Your task to perform on an android device: Empty the shopping cart on newegg.com. Add "apple airpods" to the cart on newegg.com Image 0: 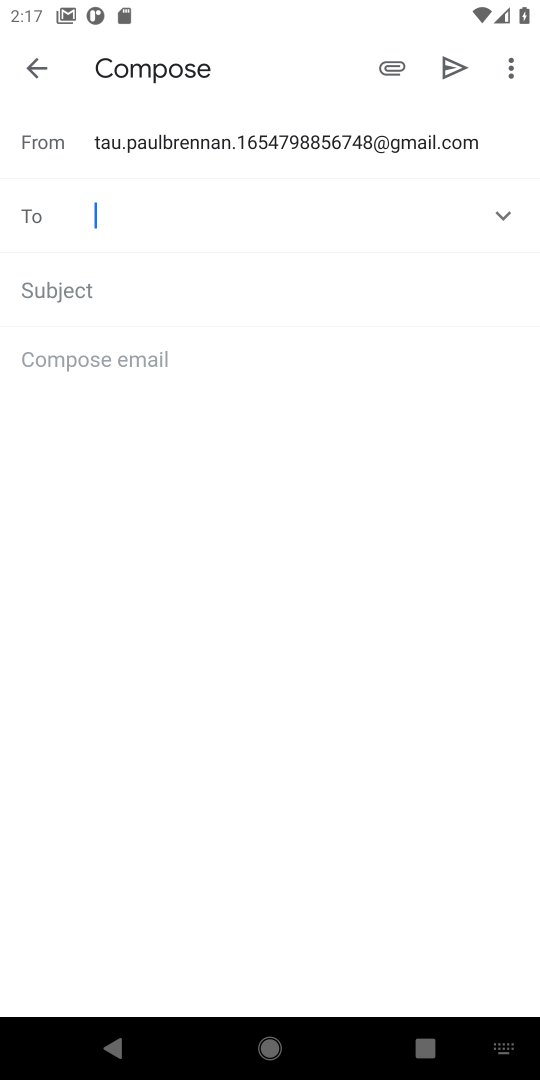
Step 0: press home button
Your task to perform on an android device: Empty the shopping cart on newegg.com. Add "apple airpods" to the cart on newegg.com Image 1: 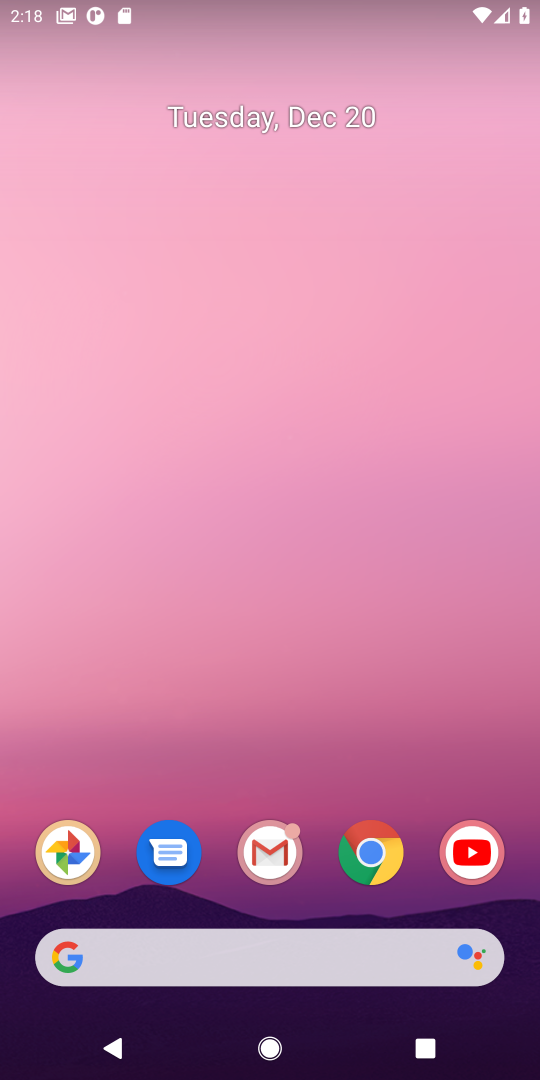
Step 1: click (370, 861)
Your task to perform on an android device: Empty the shopping cart on newegg.com. Add "apple airpods" to the cart on newegg.com Image 2: 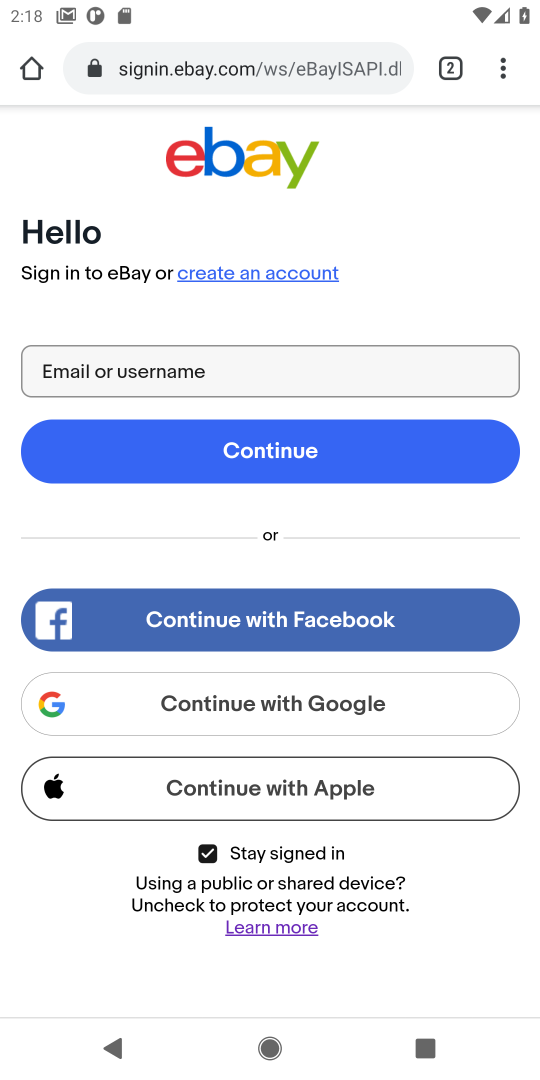
Step 2: click (183, 73)
Your task to perform on an android device: Empty the shopping cart on newegg.com. Add "apple airpods" to the cart on newegg.com Image 3: 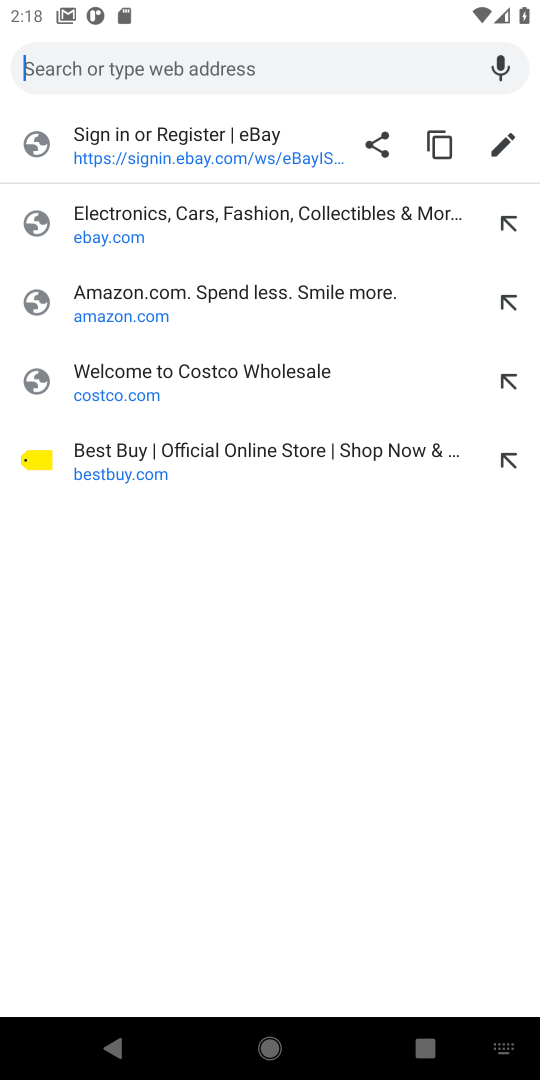
Step 3: type "newegg.com"
Your task to perform on an android device: Empty the shopping cart on newegg.com. Add "apple airpods" to the cart on newegg.com Image 4: 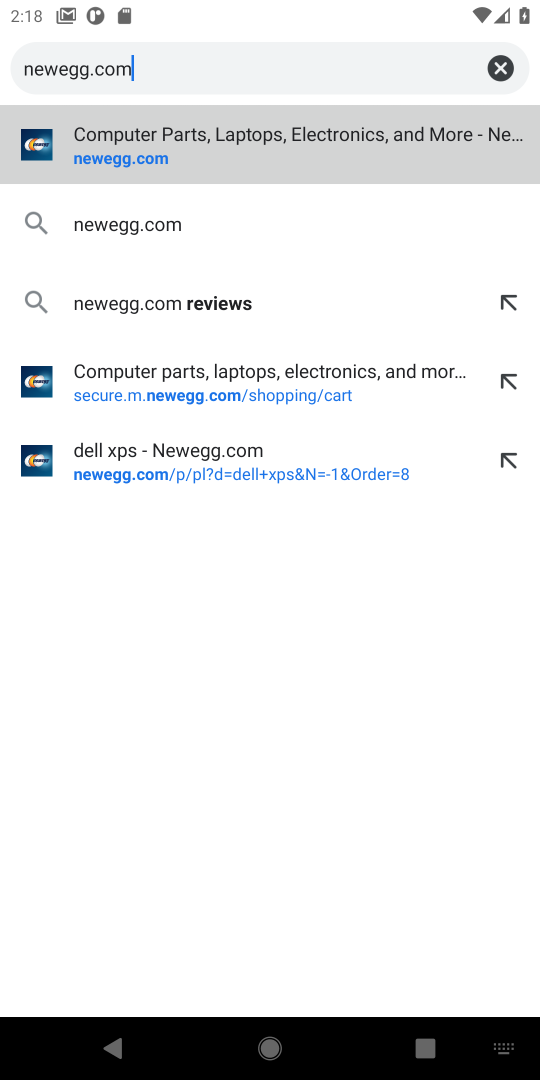
Step 4: click (113, 145)
Your task to perform on an android device: Empty the shopping cart on newegg.com. Add "apple airpods" to the cart on newegg.com Image 5: 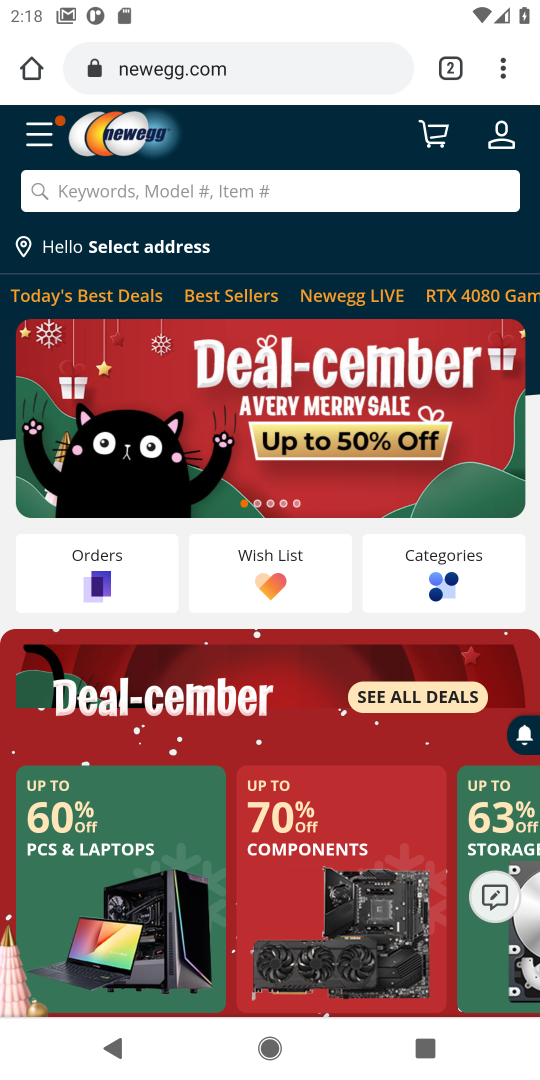
Step 5: click (429, 142)
Your task to perform on an android device: Empty the shopping cart on newegg.com. Add "apple airpods" to the cart on newegg.com Image 6: 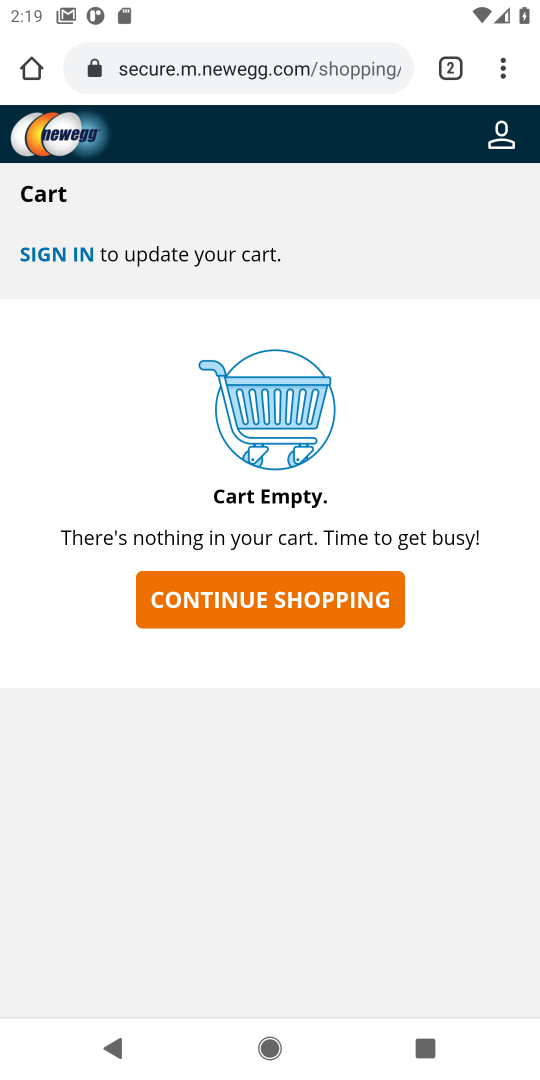
Step 6: click (303, 602)
Your task to perform on an android device: Empty the shopping cart on newegg.com. Add "apple airpods" to the cart on newegg.com Image 7: 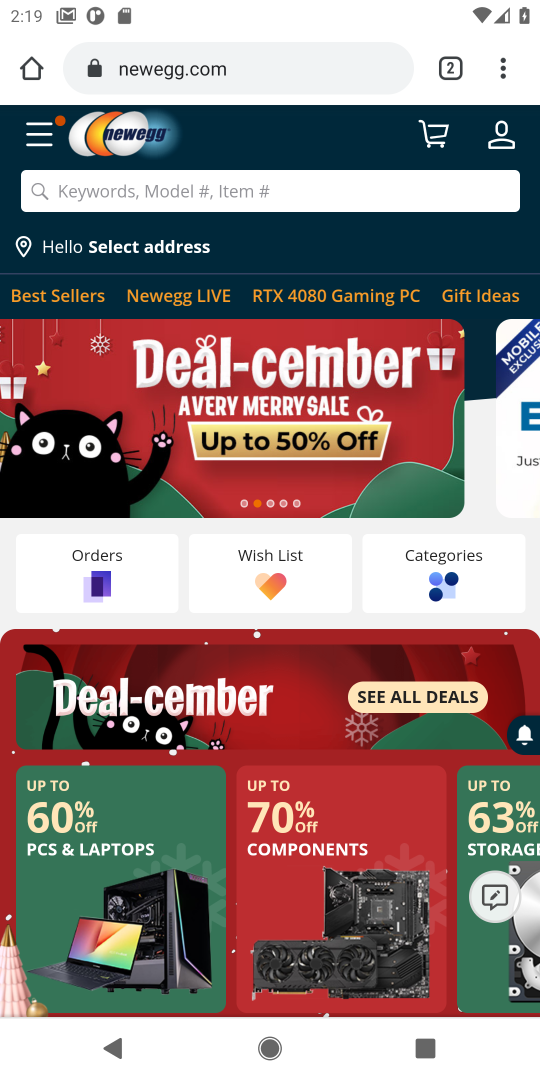
Step 7: click (95, 193)
Your task to perform on an android device: Empty the shopping cart on newegg.com. Add "apple airpods" to the cart on newegg.com Image 8: 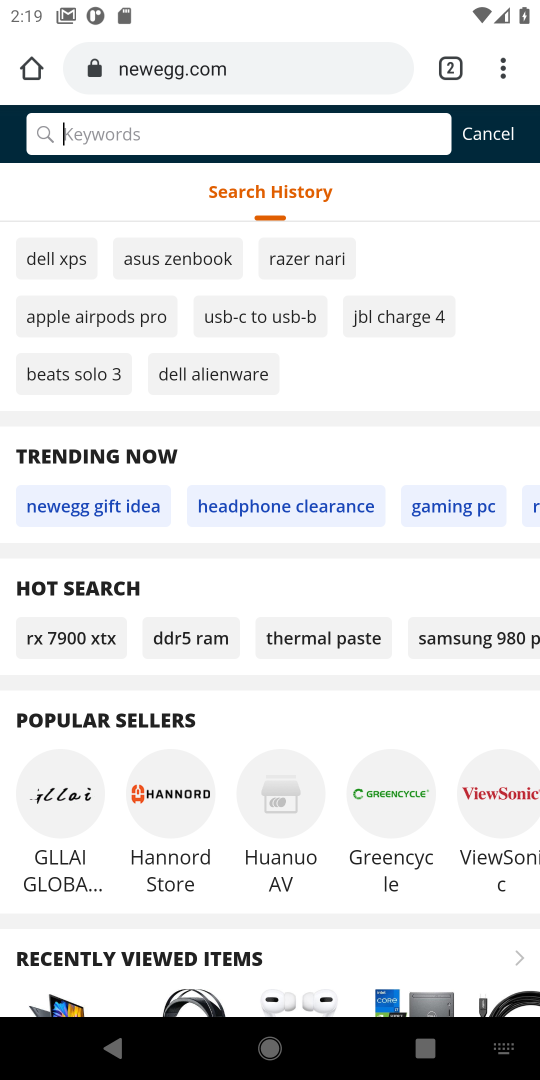
Step 8: type "apple airpods"
Your task to perform on an android device: Empty the shopping cart on newegg.com. Add "apple airpods" to the cart on newegg.com Image 9: 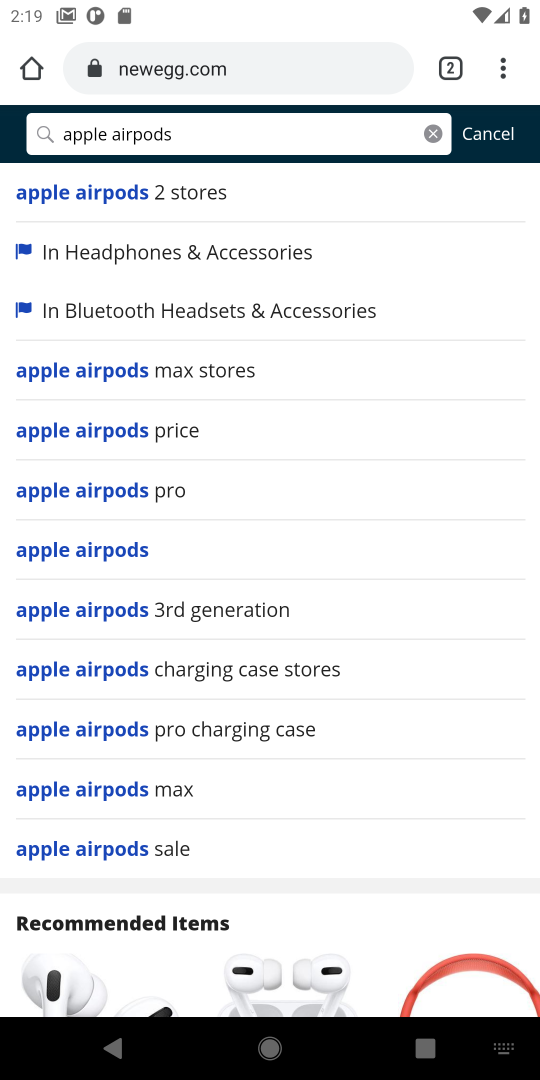
Step 9: click (76, 553)
Your task to perform on an android device: Empty the shopping cart on newegg.com. Add "apple airpods" to the cart on newegg.com Image 10: 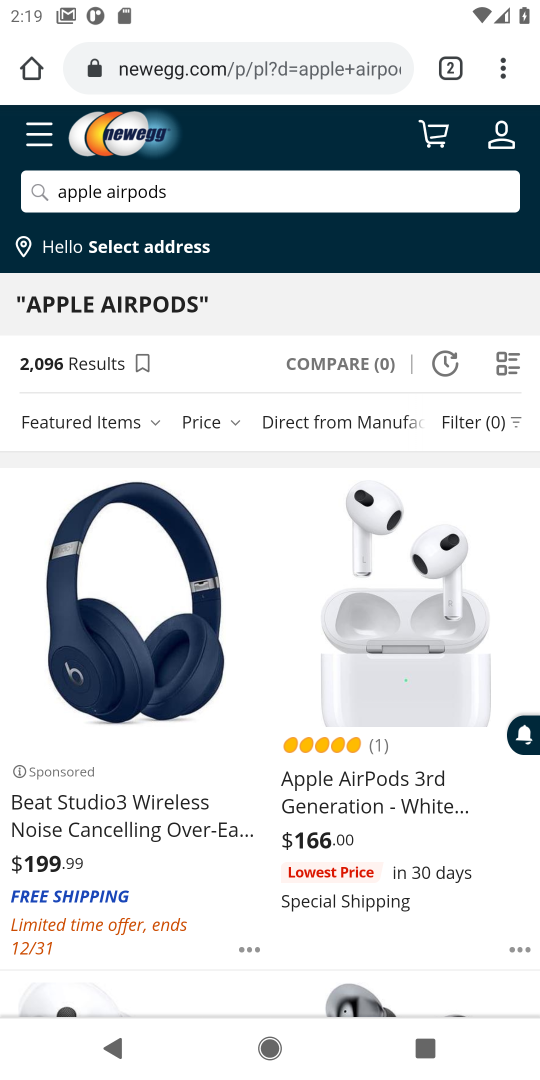
Step 10: drag from (87, 745) to (96, 533)
Your task to perform on an android device: Empty the shopping cart on newegg.com. Add "apple airpods" to the cart on newegg.com Image 11: 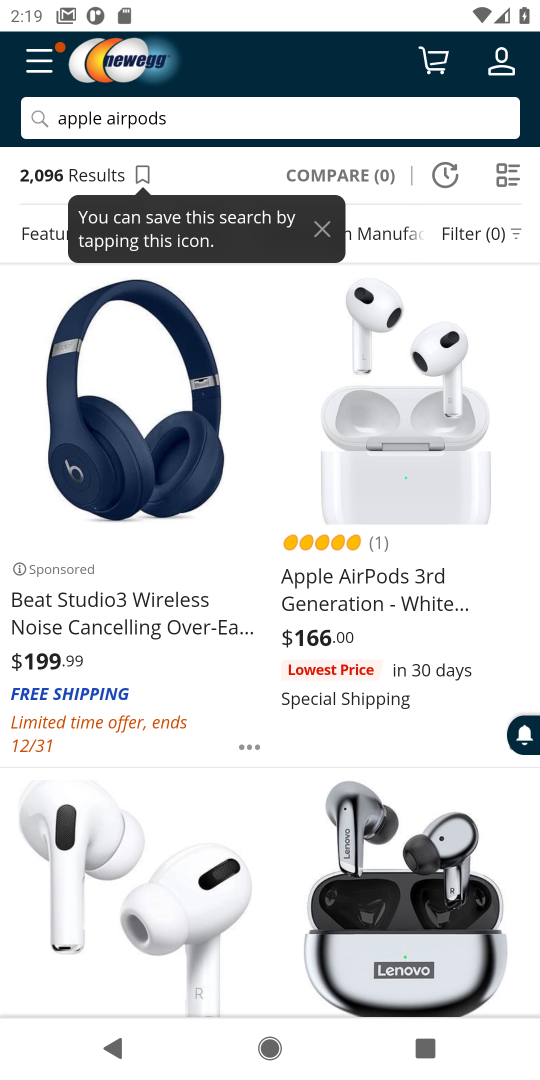
Step 11: click (354, 593)
Your task to perform on an android device: Empty the shopping cart on newegg.com. Add "apple airpods" to the cart on newegg.com Image 12: 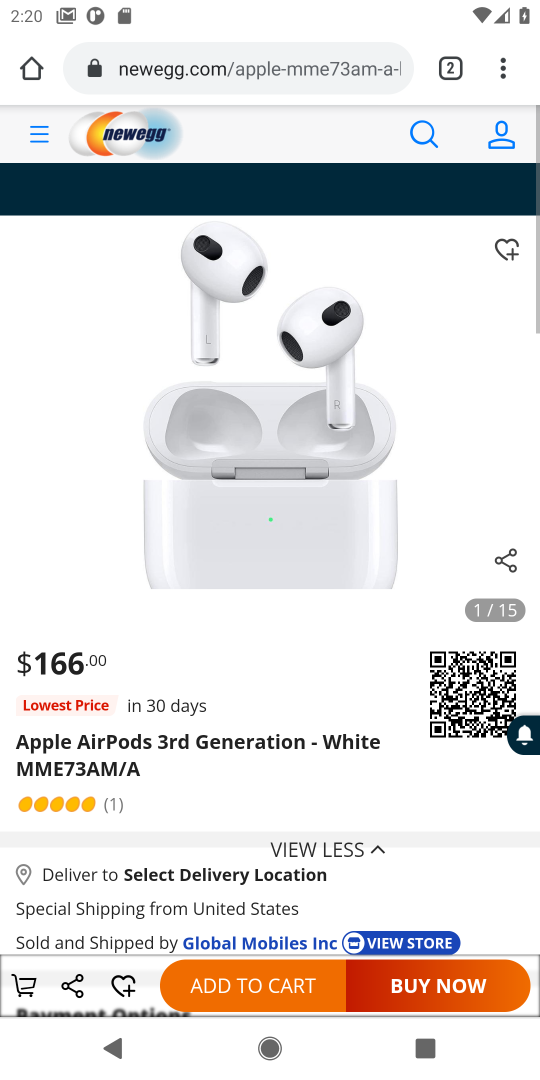
Step 12: click (227, 994)
Your task to perform on an android device: Empty the shopping cart on newegg.com. Add "apple airpods" to the cart on newegg.com Image 13: 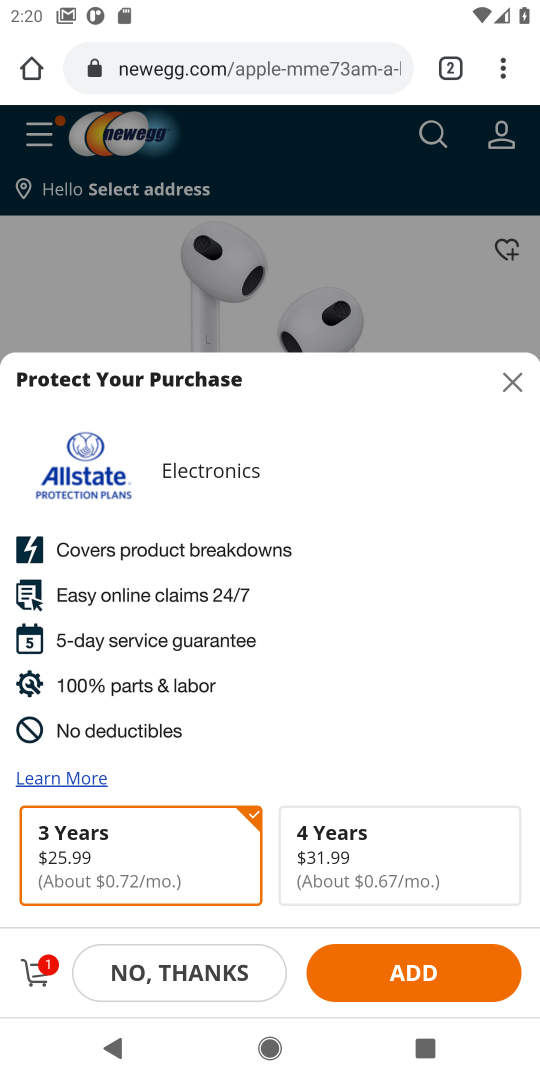
Step 13: task complete